Your task to perform on an android device: View the shopping cart on costco.com. Add "razer nari" to the cart on costco.com Image 0: 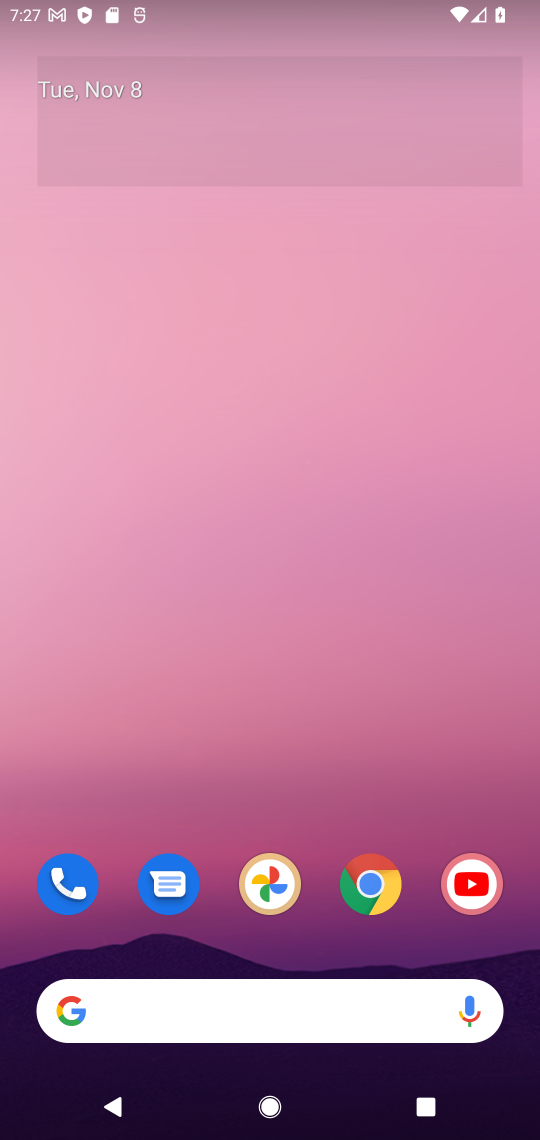
Step 0: drag from (332, 1000) to (396, 405)
Your task to perform on an android device: View the shopping cart on costco.com. Add "razer nari" to the cart on costco.com Image 1: 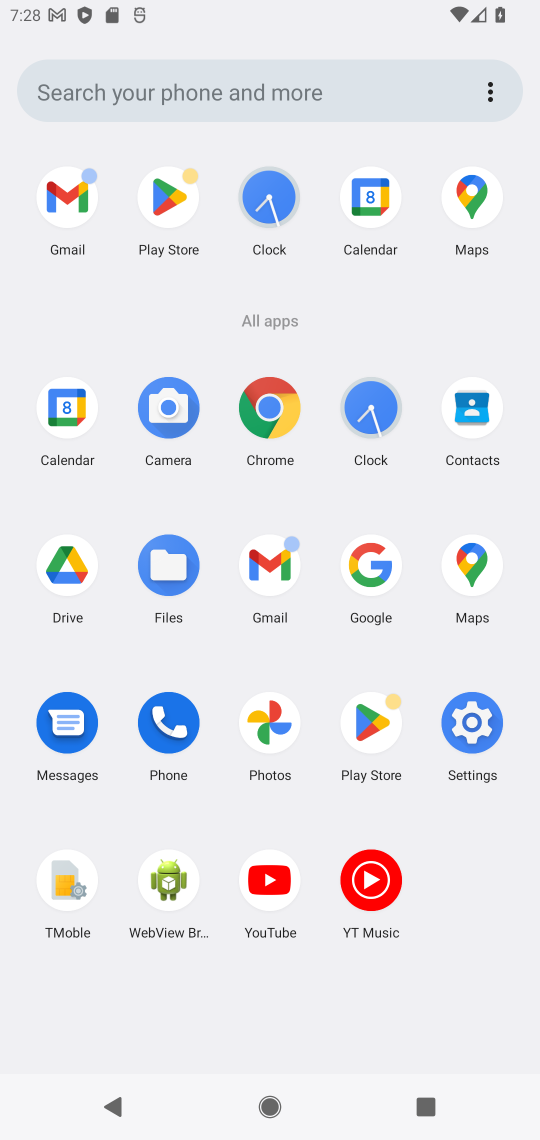
Step 1: click (386, 573)
Your task to perform on an android device: View the shopping cart on costco.com. Add "razer nari" to the cart on costco.com Image 2: 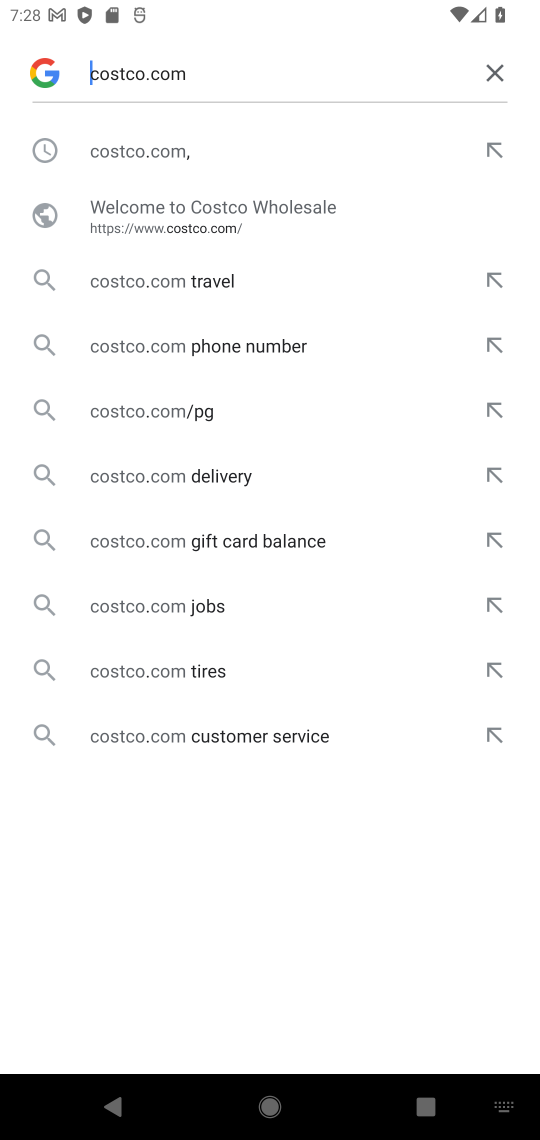
Step 2: click (281, 206)
Your task to perform on an android device: View the shopping cart on costco.com. Add "razer nari" to the cart on costco.com Image 3: 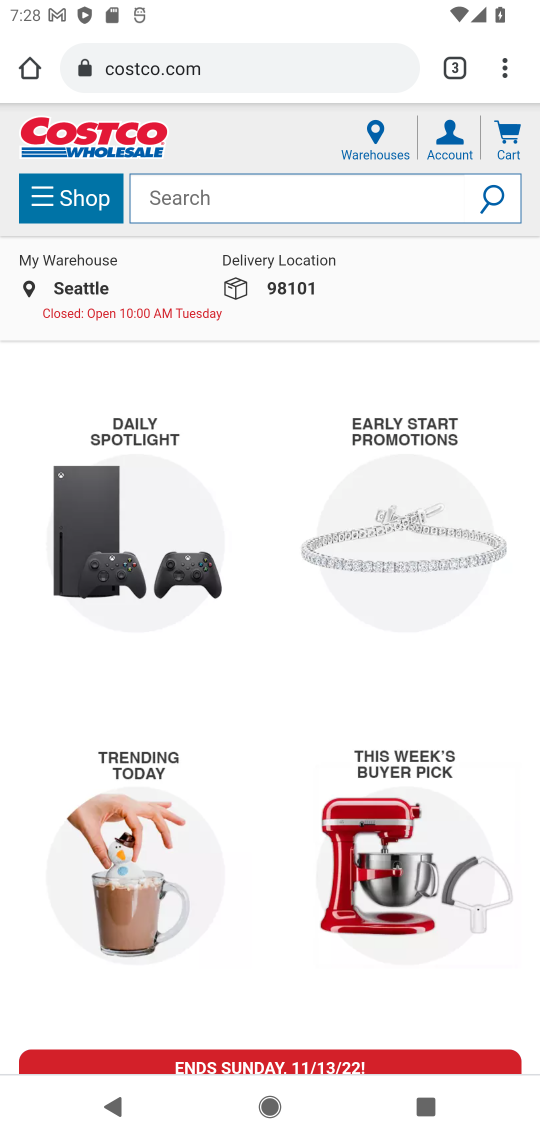
Step 3: click (231, 195)
Your task to perform on an android device: View the shopping cart on costco.com. Add "razer nari" to the cart on costco.com Image 4: 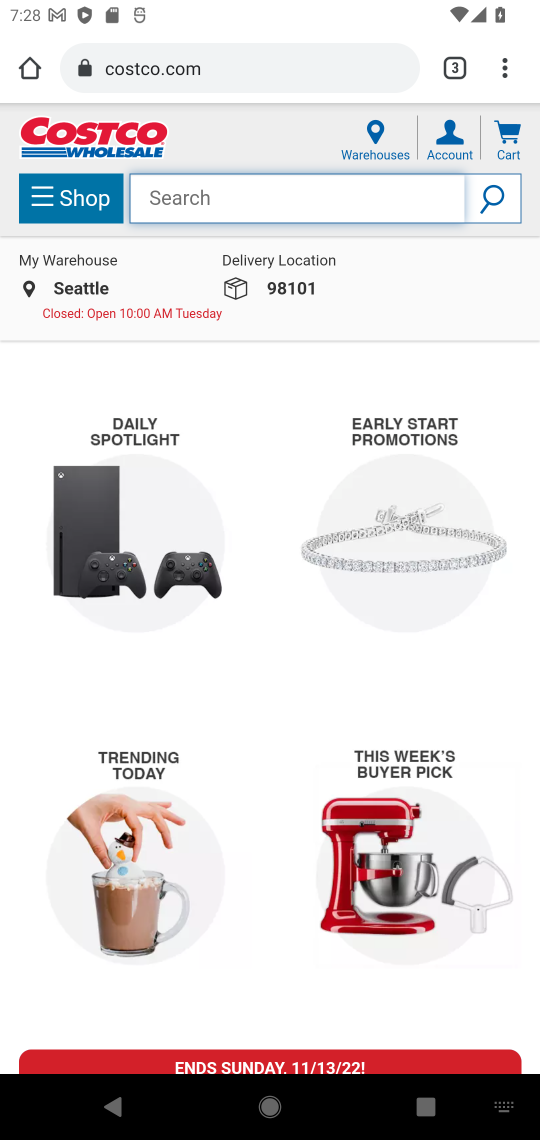
Step 4: type "razer nari"
Your task to perform on an android device: View the shopping cart on costco.com. Add "razer nari" to the cart on costco.com Image 5: 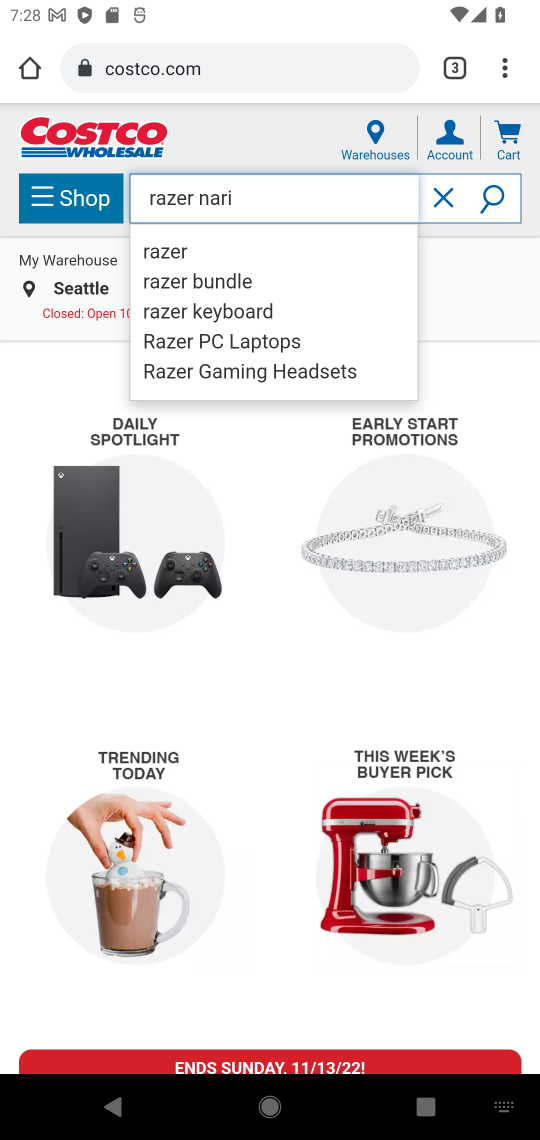
Step 5: click (232, 248)
Your task to perform on an android device: View the shopping cart on costco.com. Add "razer nari" to the cart on costco.com Image 6: 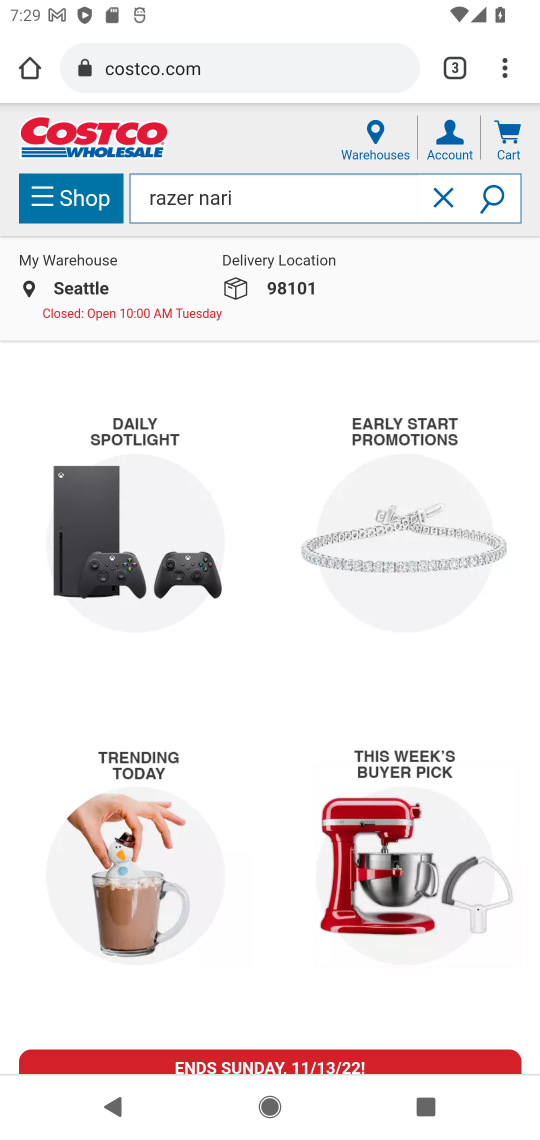
Step 6: click (489, 204)
Your task to perform on an android device: View the shopping cart on costco.com. Add "razer nari" to the cart on costco.com Image 7: 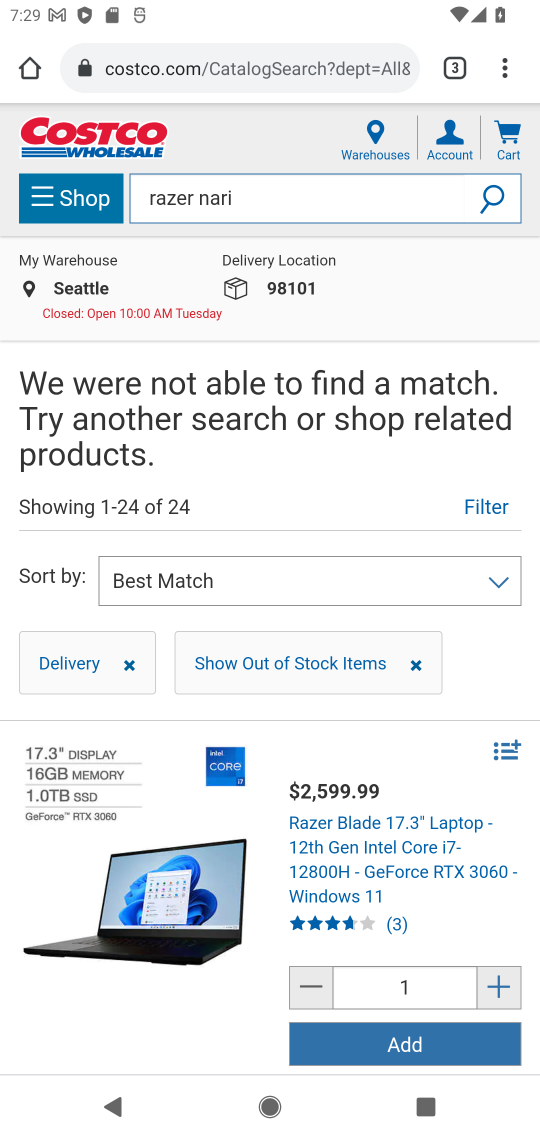
Step 7: click (377, 844)
Your task to perform on an android device: View the shopping cart on costco.com. Add "razer nari" to the cart on costco.com Image 8: 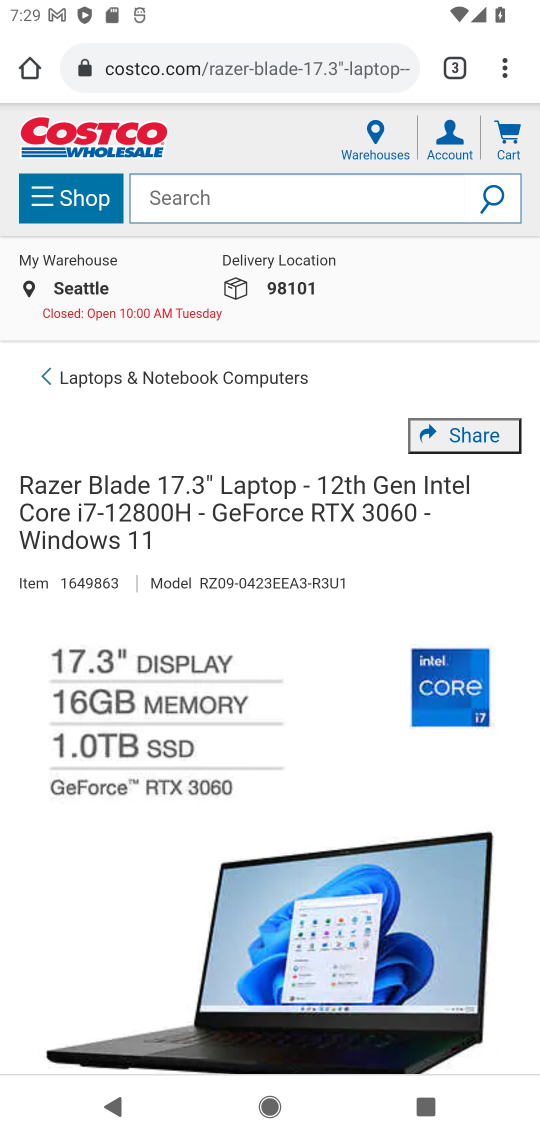
Step 8: drag from (322, 875) to (331, 40)
Your task to perform on an android device: View the shopping cart on costco.com. Add "razer nari" to the cart on costco.com Image 9: 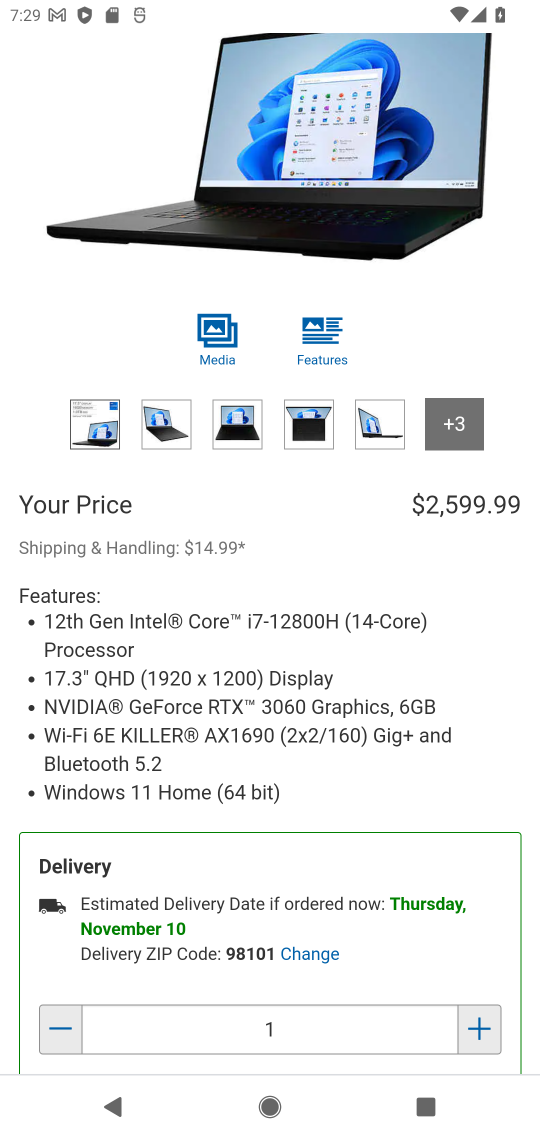
Step 9: drag from (398, 887) to (375, 555)
Your task to perform on an android device: View the shopping cart on costco.com. Add "razer nari" to the cart on costco.com Image 10: 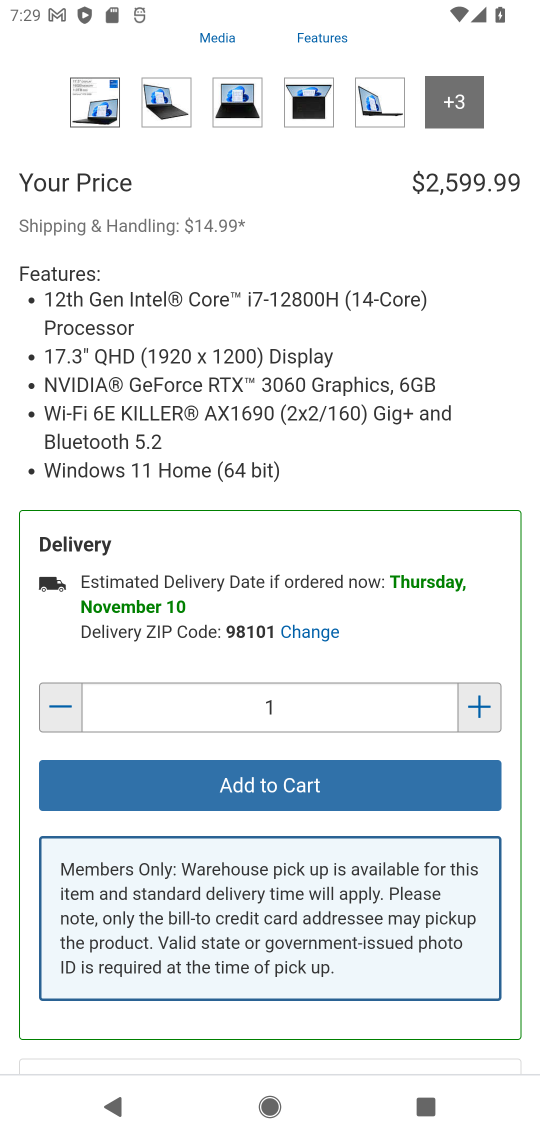
Step 10: click (376, 789)
Your task to perform on an android device: View the shopping cart on costco.com. Add "razer nari" to the cart on costco.com Image 11: 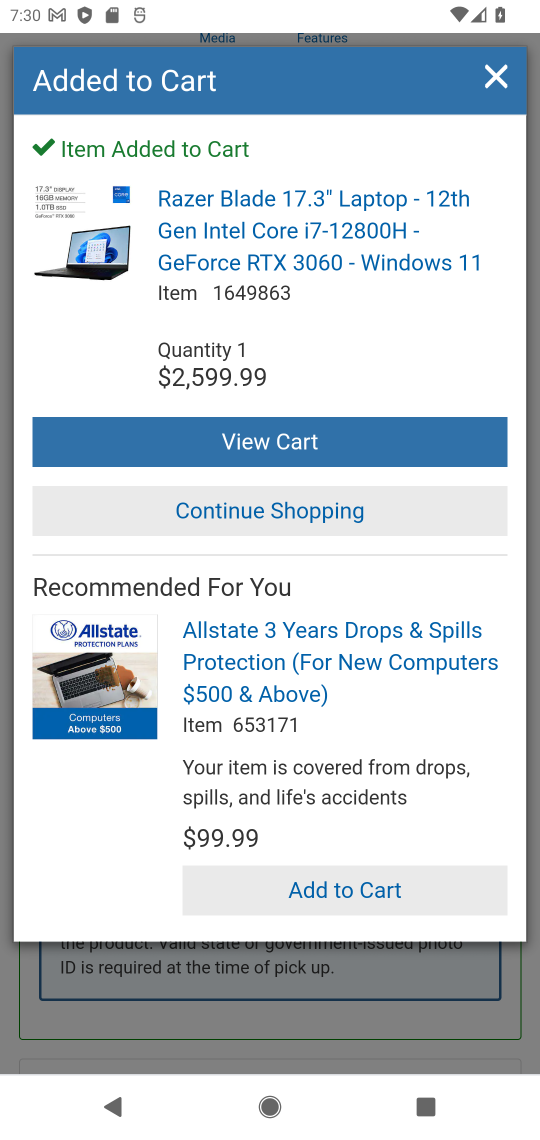
Step 11: task complete